Your task to perform on an android device: Do I have any events today? Image 0: 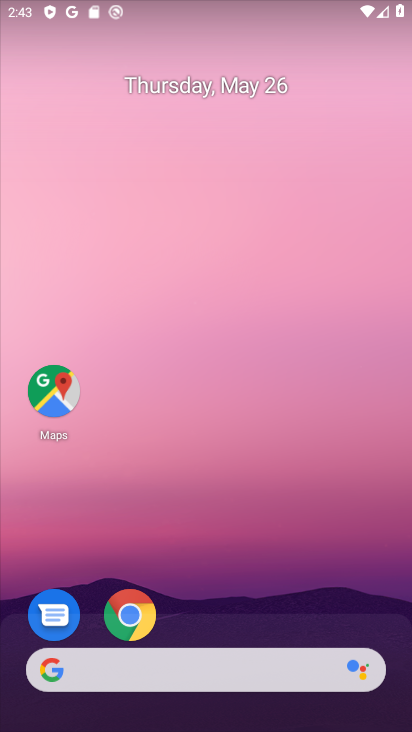
Step 0: drag from (214, 637) to (209, 224)
Your task to perform on an android device: Do I have any events today? Image 1: 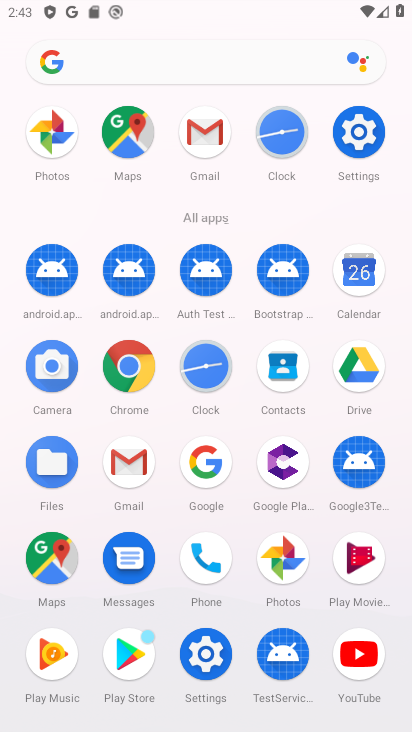
Step 1: click (357, 288)
Your task to perform on an android device: Do I have any events today? Image 2: 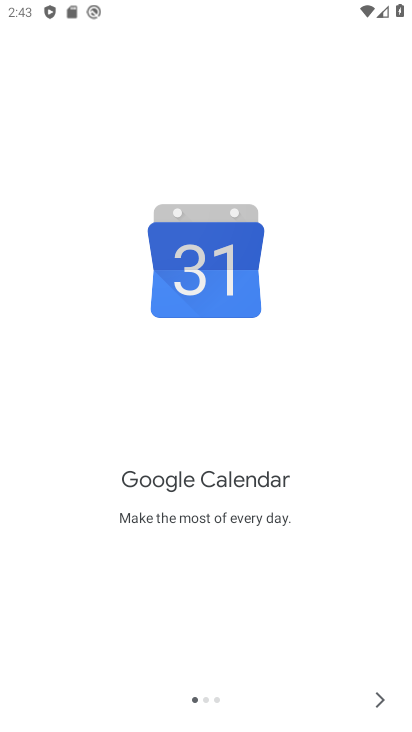
Step 2: click (378, 706)
Your task to perform on an android device: Do I have any events today? Image 3: 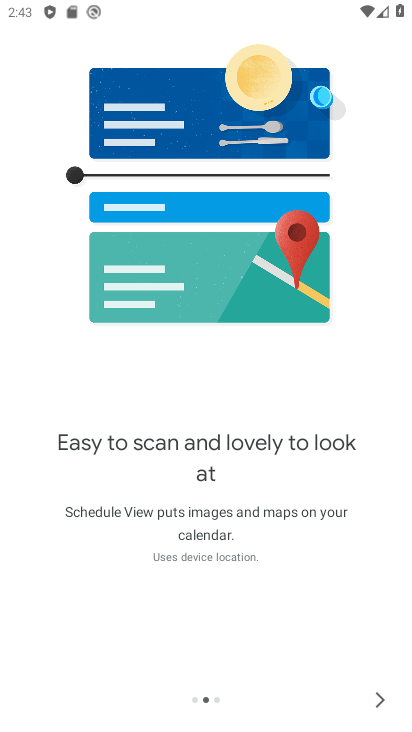
Step 3: click (378, 706)
Your task to perform on an android device: Do I have any events today? Image 4: 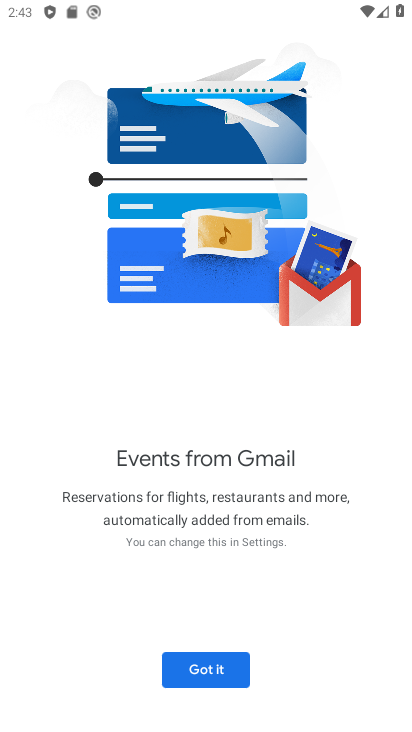
Step 4: click (207, 666)
Your task to perform on an android device: Do I have any events today? Image 5: 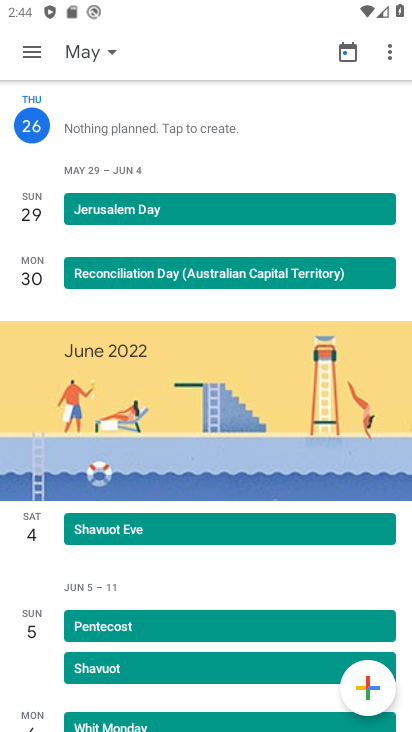
Step 5: click (39, 54)
Your task to perform on an android device: Do I have any events today? Image 6: 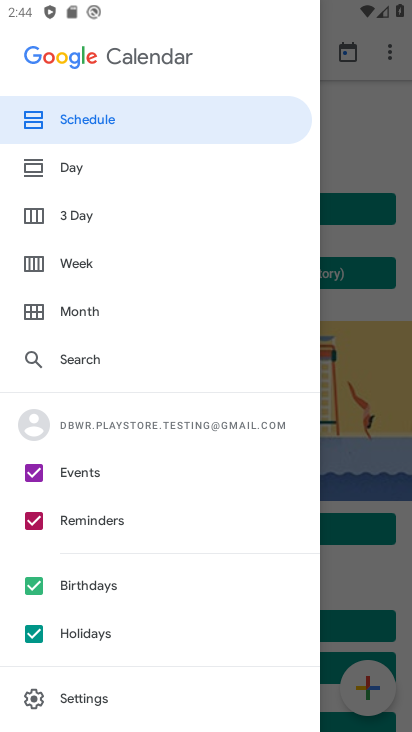
Step 6: click (111, 119)
Your task to perform on an android device: Do I have any events today? Image 7: 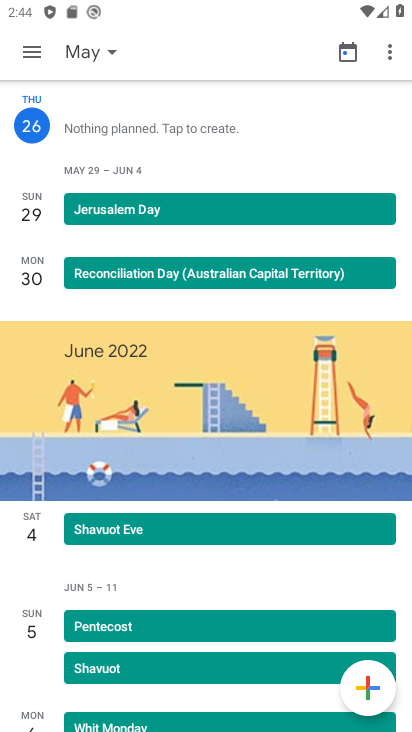
Step 7: task complete